Your task to perform on an android device: install app "PUBG MOBILE" Image 0: 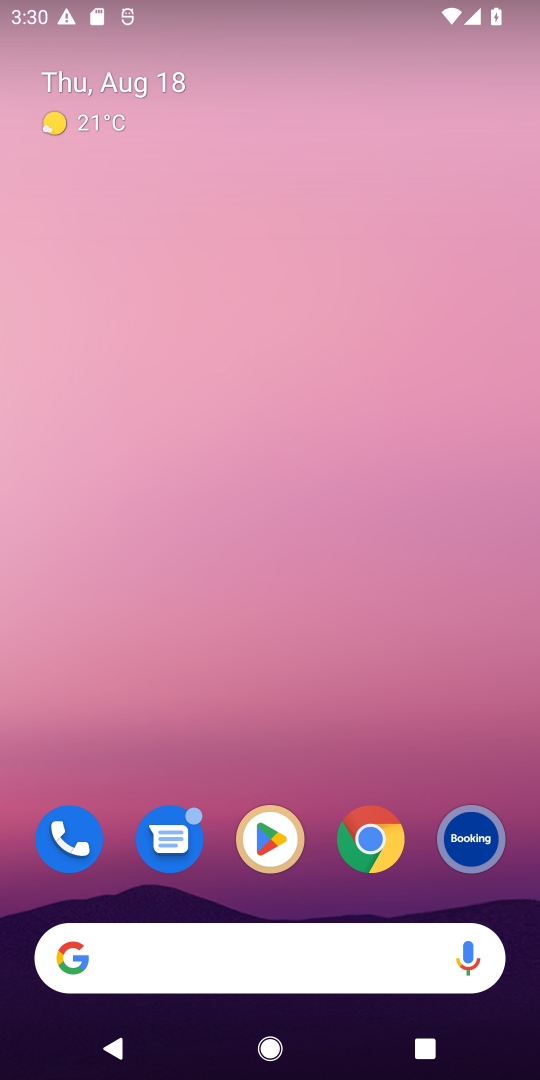
Step 0: click (271, 845)
Your task to perform on an android device: install app "PUBG MOBILE" Image 1: 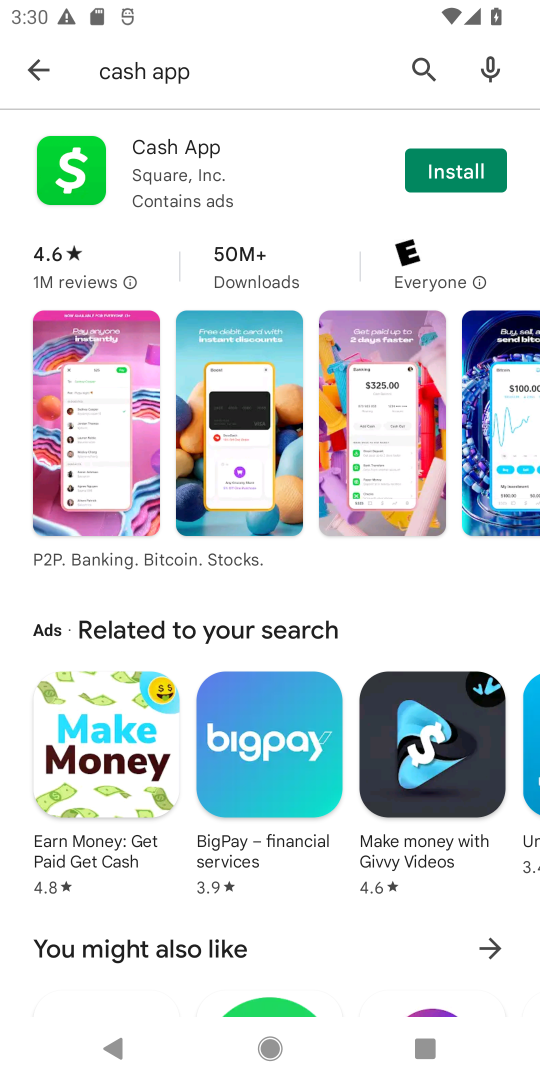
Step 1: click (29, 53)
Your task to perform on an android device: install app "PUBG MOBILE" Image 2: 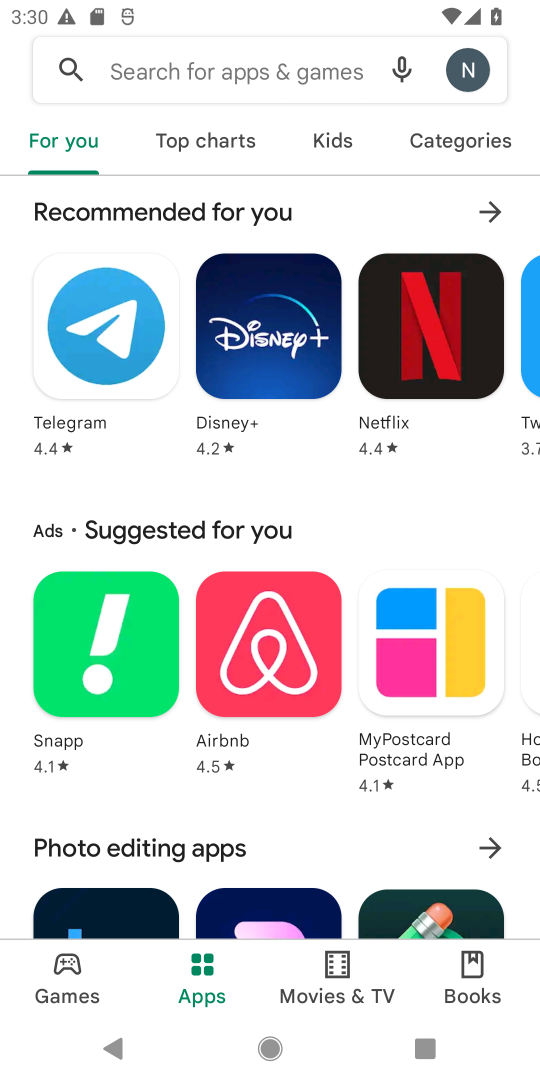
Step 2: click (174, 71)
Your task to perform on an android device: install app "PUBG MOBILE" Image 3: 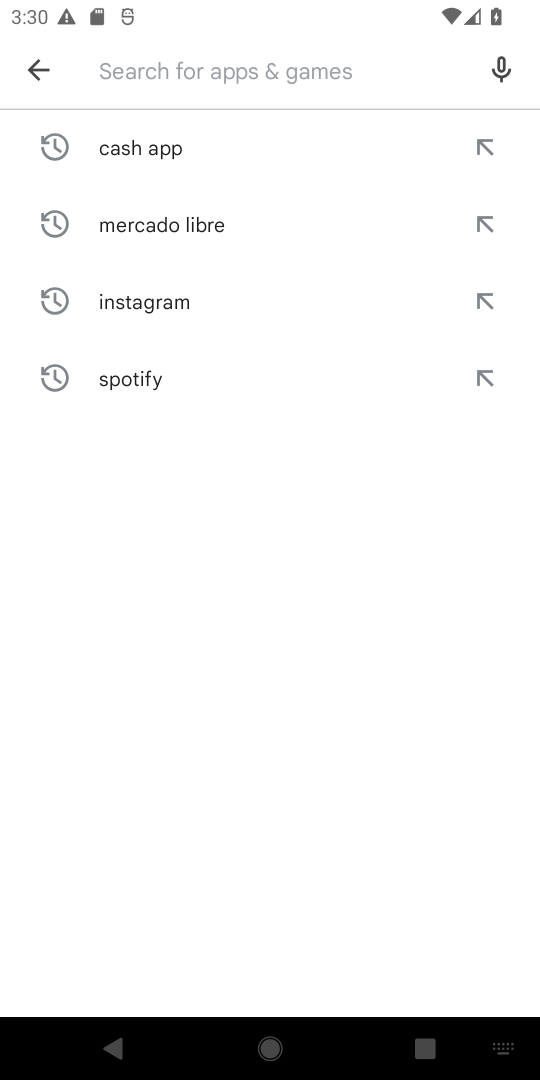
Step 3: type "PUBG MOBILE"
Your task to perform on an android device: install app "PUBG MOBILE" Image 4: 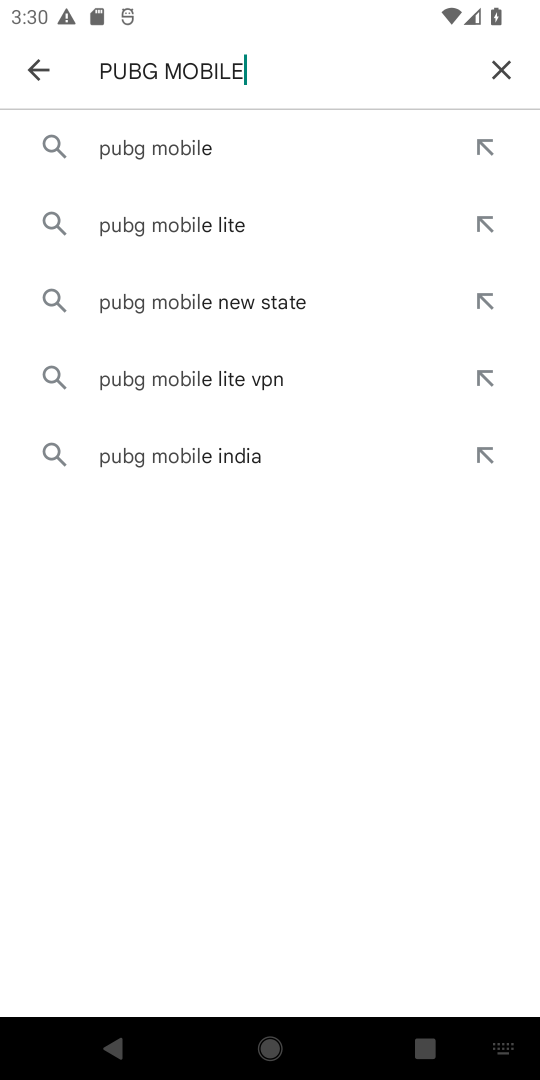
Step 4: type ""
Your task to perform on an android device: install app "PUBG MOBILE" Image 5: 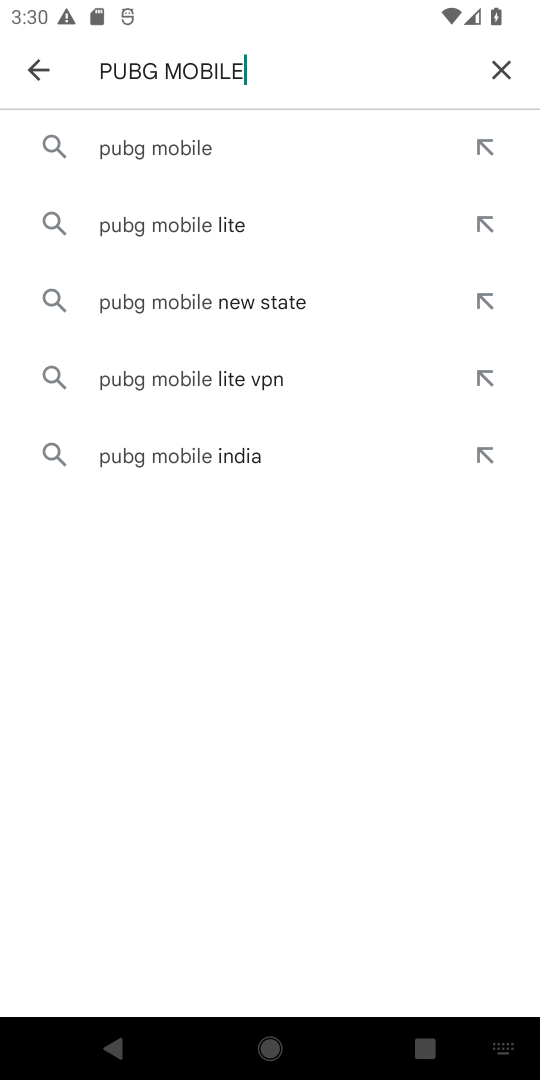
Step 5: click (248, 167)
Your task to perform on an android device: install app "PUBG MOBILE" Image 6: 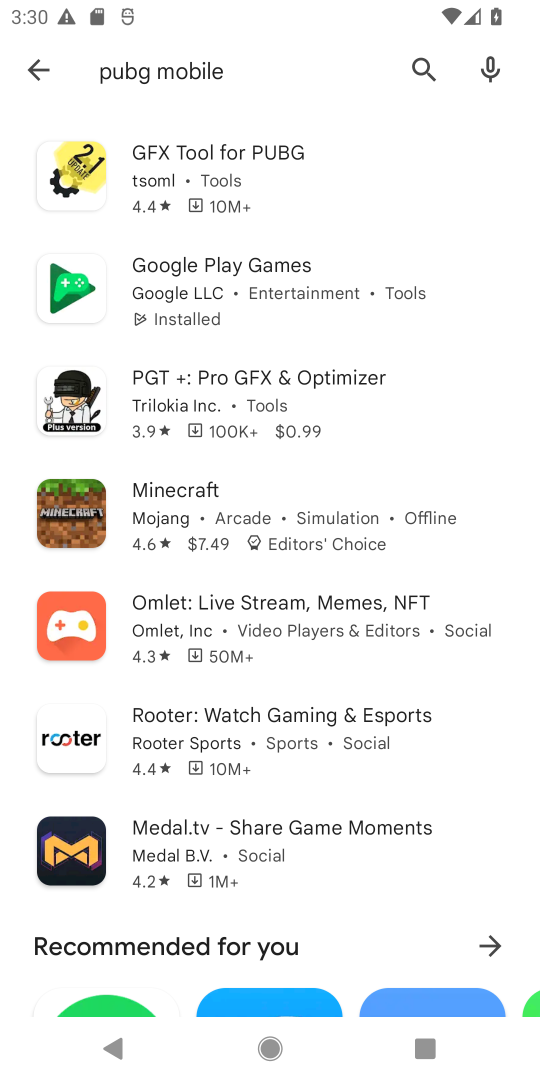
Step 6: task complete